Your task to perform on an android device: toggle data saver in the chrome app Image 0: 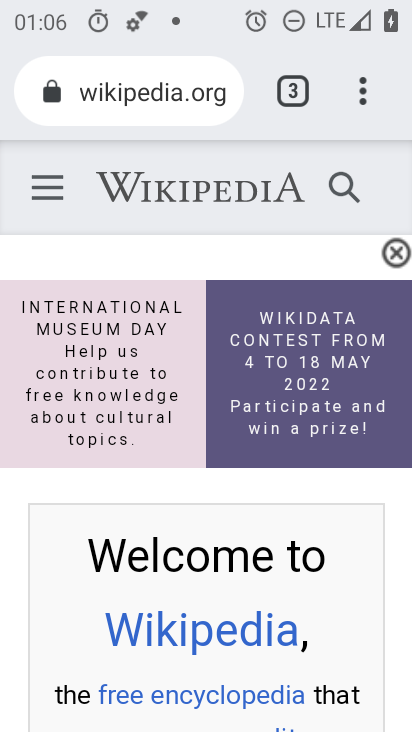
Step 0: press home button
Your task to perform on an android device: toggle data saver in the chrome app Image 1: 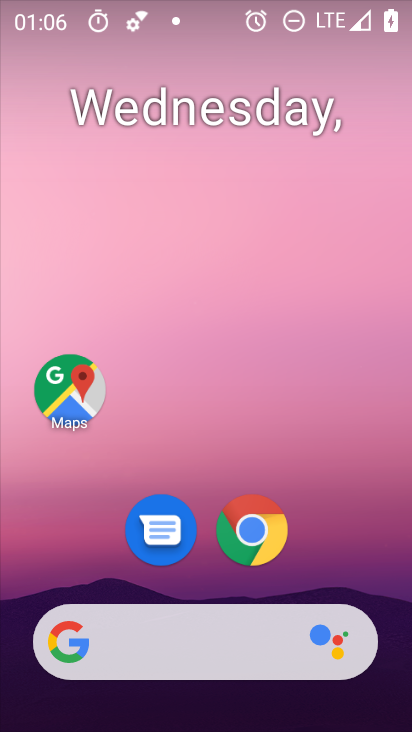
Step 1: drag from (171, 680) to (248, 170)
Your task to perform on an android device: toggle data saver in the chrome app Image 2: 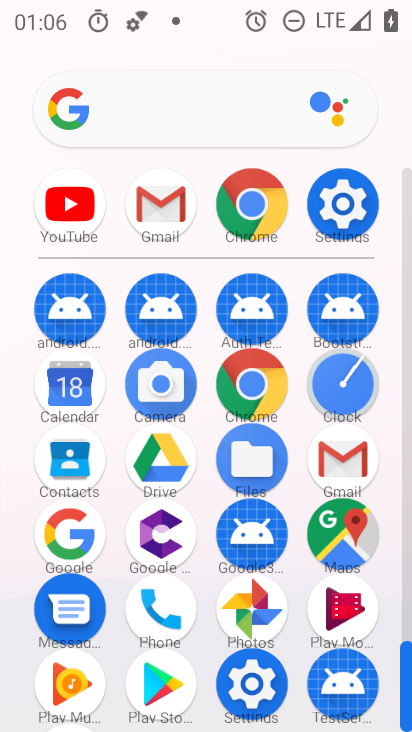
Step 2: click (274, 385)
Your task to perform on an android device: toggle data saver in the chrome app Image 3: 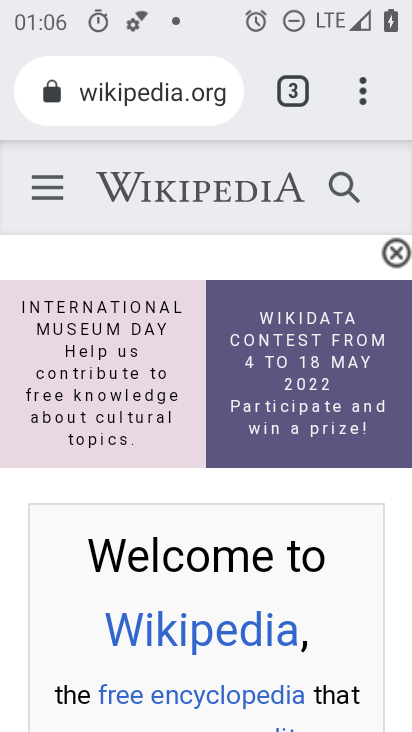
Step 3: drag from (367, 97) to (176, 559)
Your task to perform on an android device: toggle data saver in the chrome app Image 4: 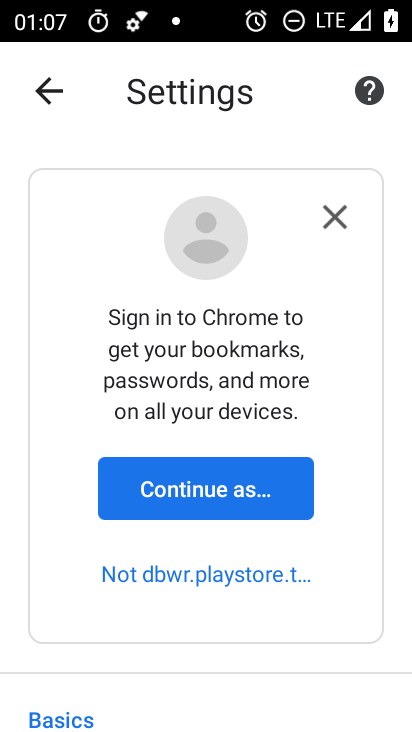
Step 4: drag from (272, 702) to (310, 174)
Your task to perform on an android device: toggle data saver in the chrome app Image 5: 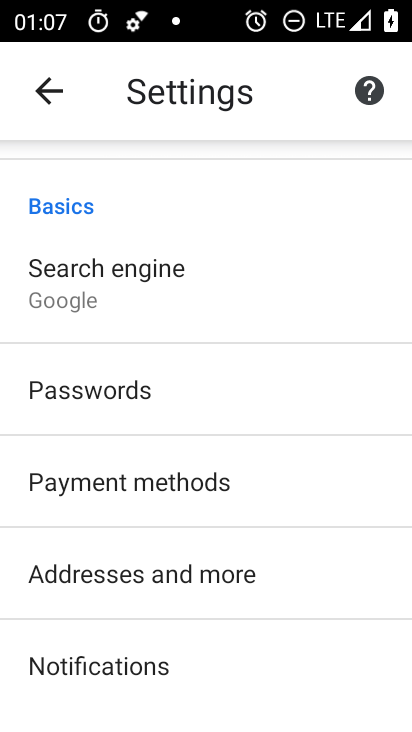
Step 5: drag from (277, 634) to (284, 161)
Your task to perform on an android device: toggle data saver in the chrome app Image 6: 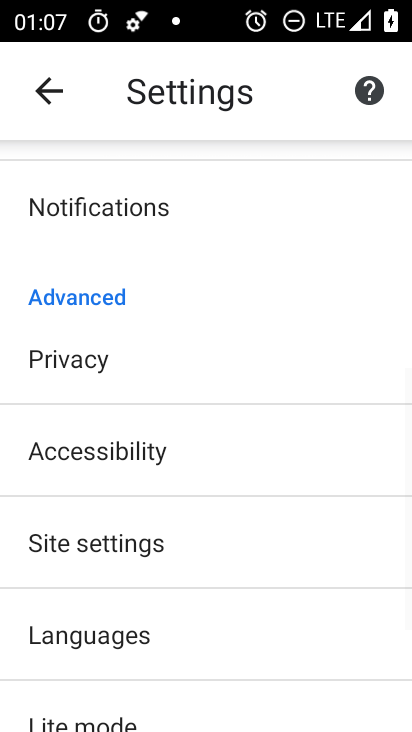
Step 6: drag from (187, 681) to (232, 329)
Your task to perform on an android device: toggle data saver in the chrome app Image 7: 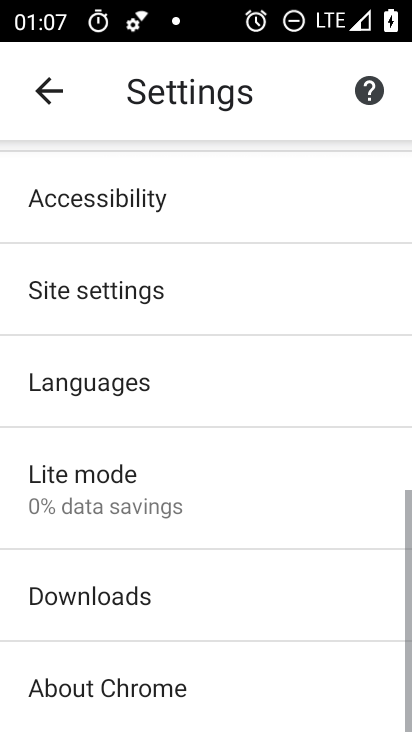
Step 7: click (143, 472)
Your task to perform on an android device: toggle data saver in the chrome app Image 8: 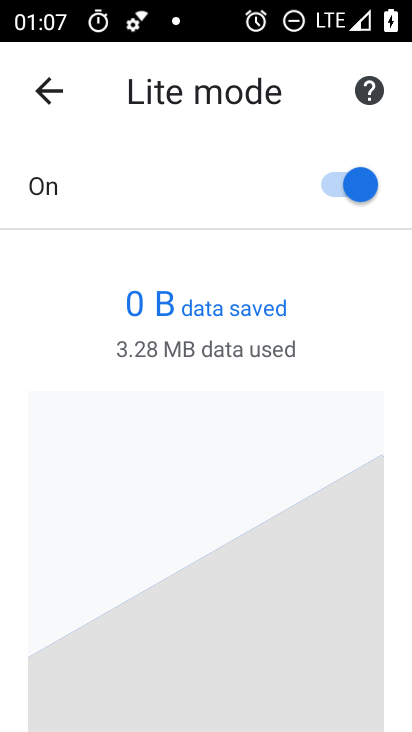
Step 8: click (350, 191)
Your task to perform on an android device: toggle data saver in the chrome app Image 9: 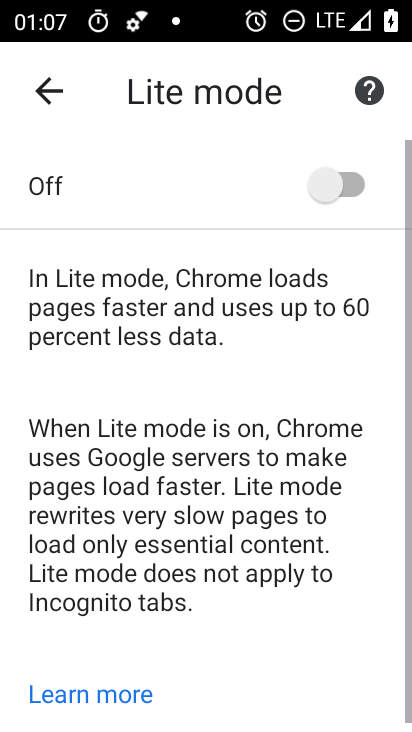
Step 9: task complete